Your task to perform on an android device: toggle pop-ups in chrome Image 0: 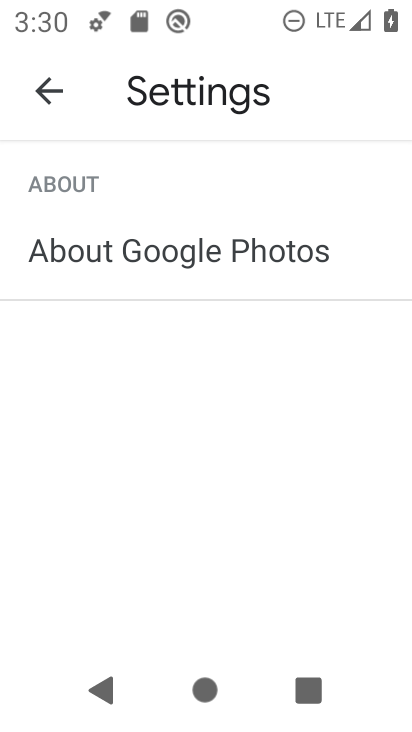
Step 0: press home button
Your task to perform on an android device: toggle pop-ups in chrome Image 1: 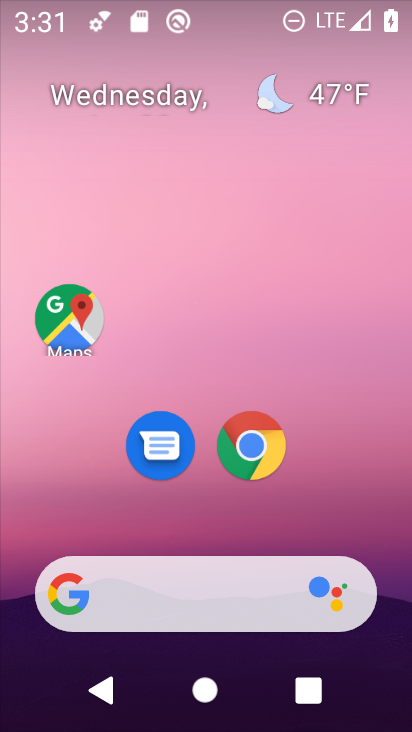
Step 1: click (251, 447)
Your task to perform on an android device: toggle pop-ups in chrome Image 2: 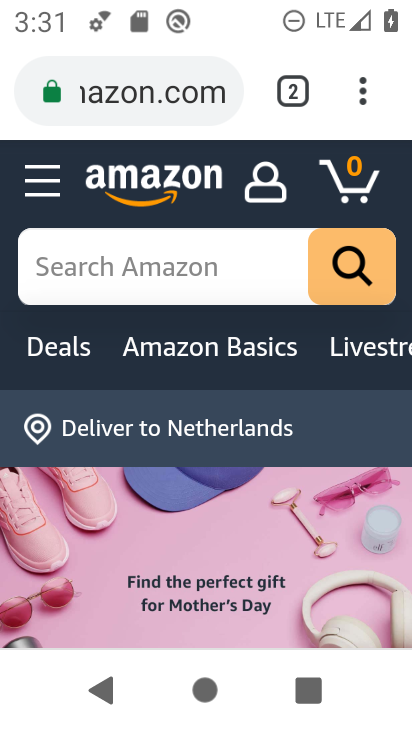
Step 2: click (363, 93)
Your task to perform on an android device: toggle pop-ups in chrome Image 3: 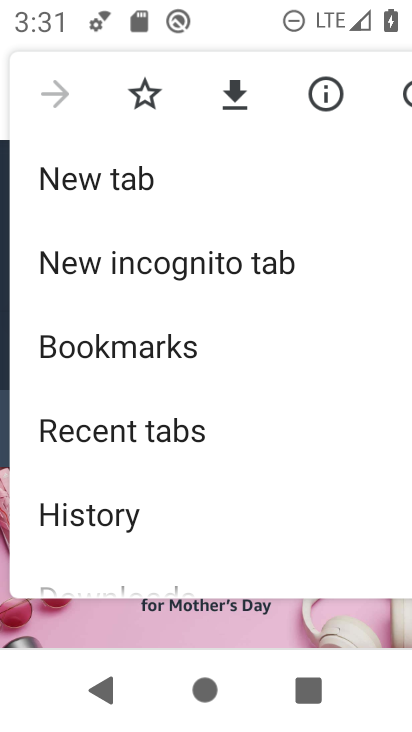
Step 3: drag from (175, 492) to (218, 357)
Your task to perform on an android device: toggle pop-ups in chrome Image 4: 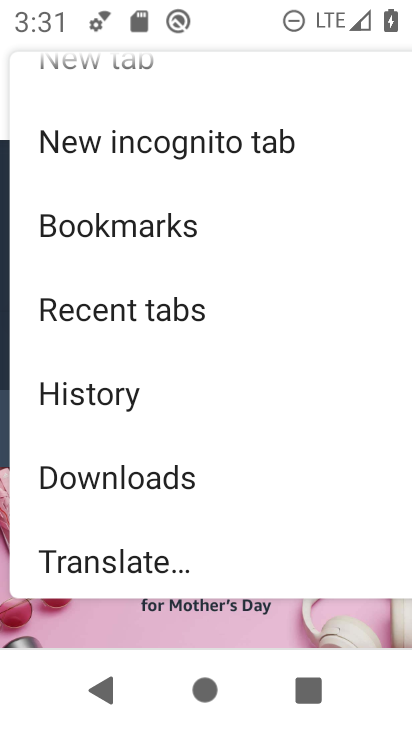
Step 4: drag from (149, 452) to (190, 352)
Your task to perform on an android device: toggle pop-ups in chrome Image 5: 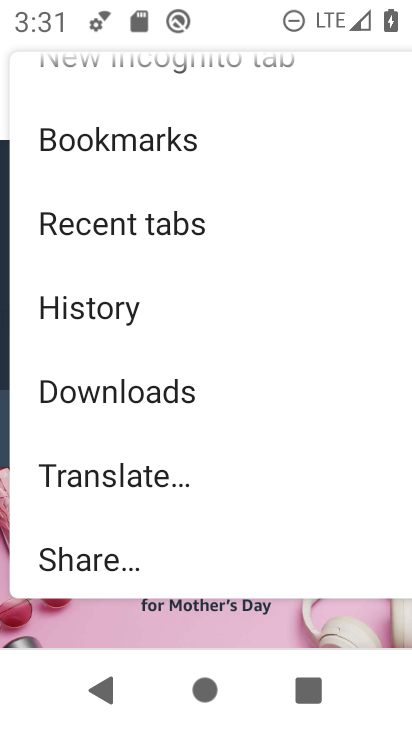
Step 5: drag from (139, 444) to (193, 334)
Your task to perform on an android device: toggle pop-ups in chrome Image 6: 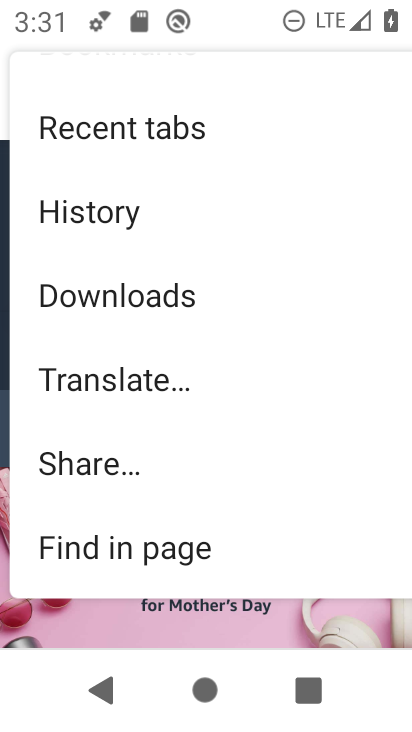
Step 6: drag from (137, 447) to (180, 306)
Your task to perform on an android device: toggle pop-ups in chrome Image 7: 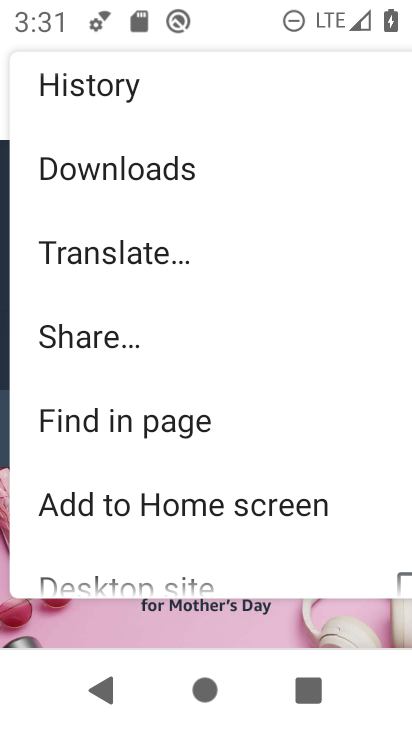
Step 7: drag from (141, 394) to (179, 265)
Your task to perform on an android device: toggle pop-ups in chrome Image 8: 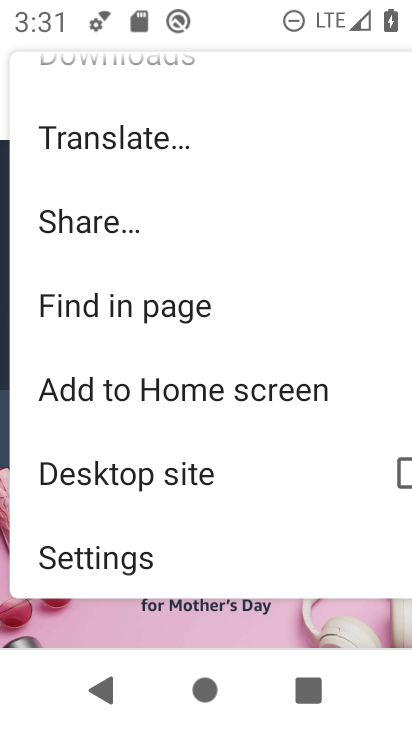
Step 8: drag from (188, 429) to (210, 308)
Your task to perform on an android device: toggle pop-ups in chrome Image 9: 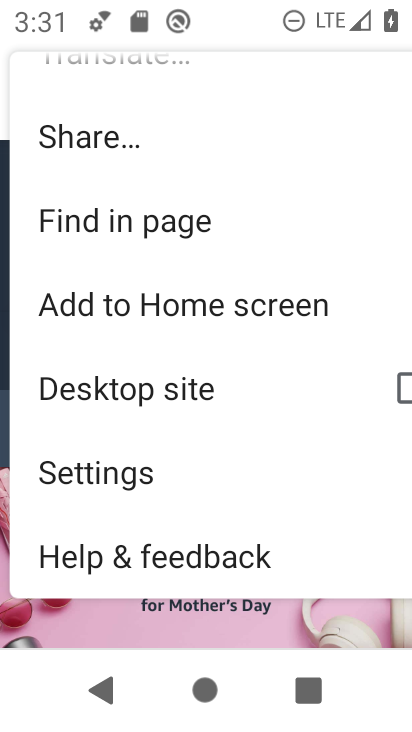
Step 9: click (111, 473)
Your task to perform on an android device: toggle pop-ups in chrome Image 10: 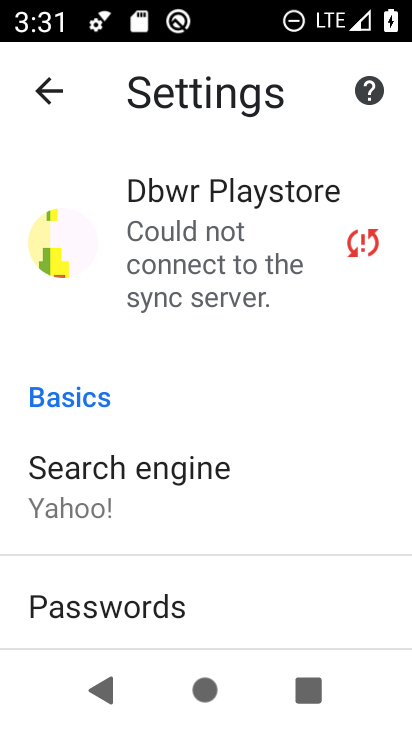
Step 10: drag from (202, 496) to (215, 380)
Your task to perform on an android device: toggle pop-ups in chrome Image 11: 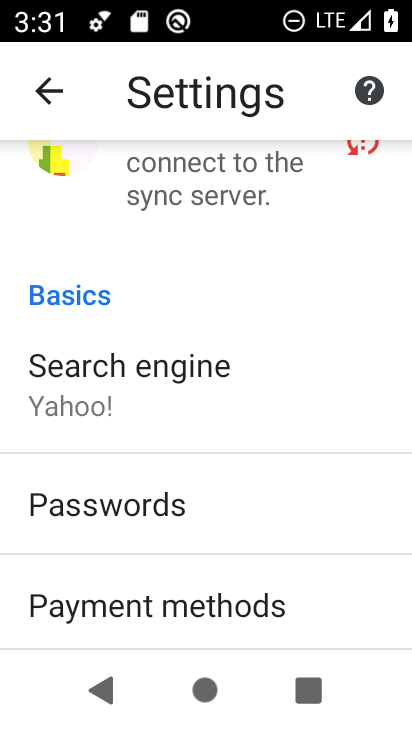
Step 11: drag from (216, 489) to (235, 340)
Your task to perform on an android device: toggle pop-ups in chrome Image 12: 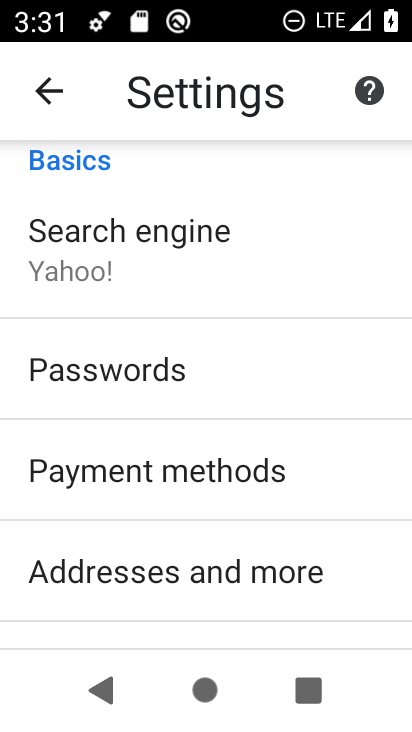
Step 12: drag from (194, 443) to (260, 320)
Your task to perform on an android device: toggle pop-ups in chrome Image 13: 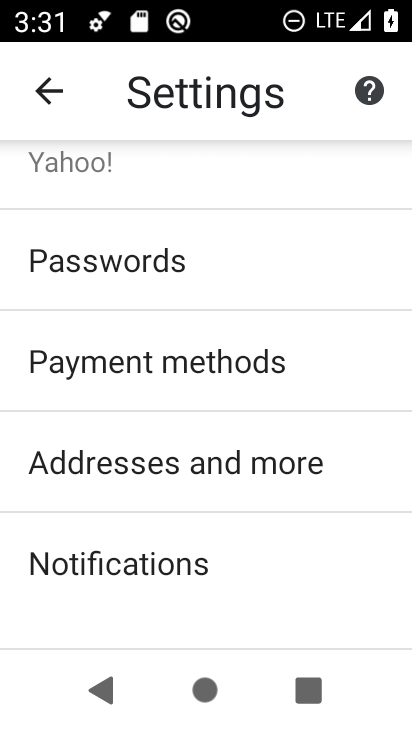
Step 13: drag from (220, 426) to (249, 352)
Your task to perform on an android device: toggle pop-ups in chrome Image 14: 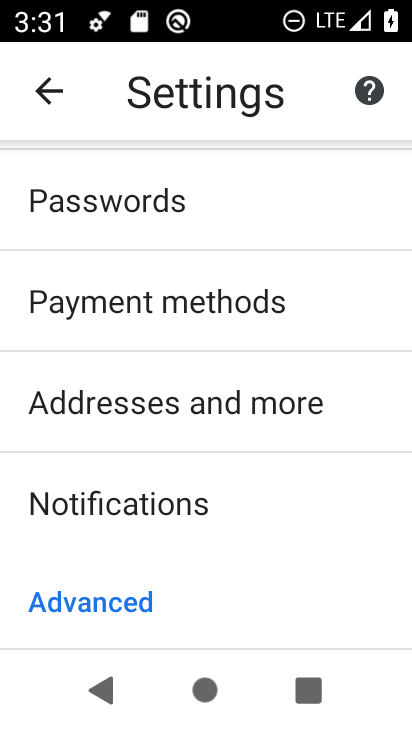
Step 14: drag from (216, 482) to (239, 361)
Your task to perform on an android device: toggle pop-ups in chrome Image 15: 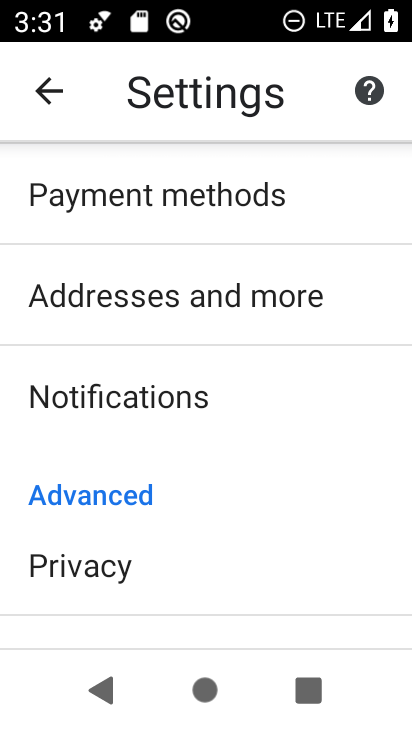
Step 15: drag from (182, 519) to (235, 392)
Your task to perform on an android device: toggle pop-ups in chrome Image 16: 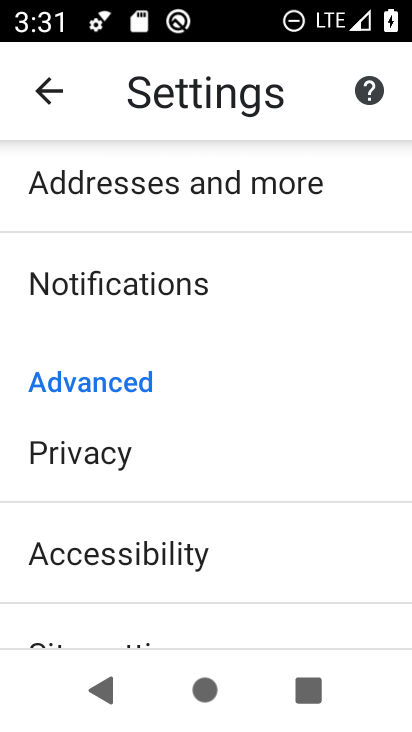
Step 16: drag from (203, 534) to (274, 420)
Your task to perform on an android device: toggle pop-ups in chrome Image 17: 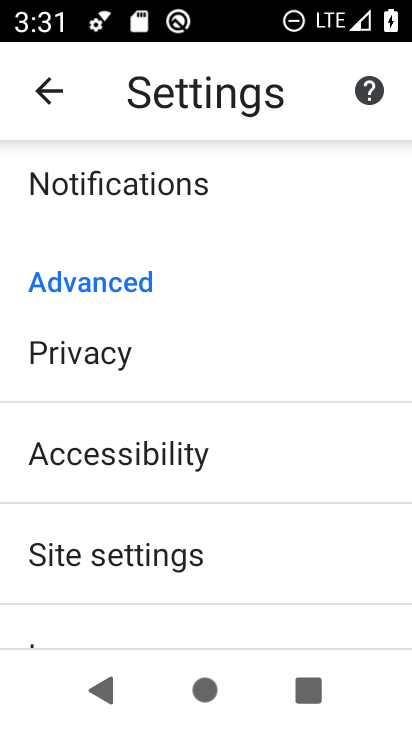
Step 17: drag from (244, 582) to (270, 481)
Your task to perform on an android device: toggle pop-ups in chrome Image 18: 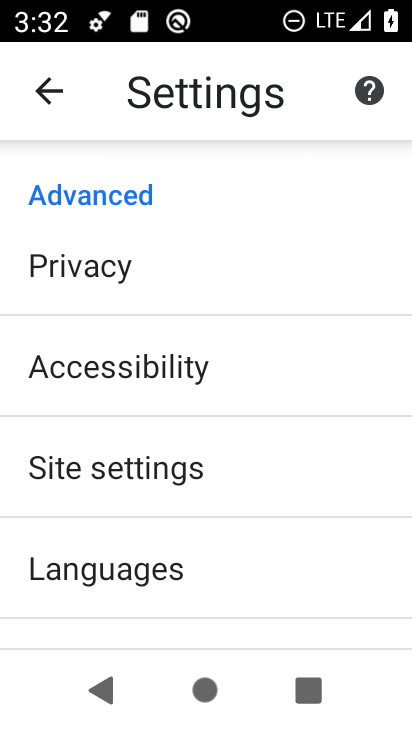
Step 18: click (185, 475)
Your task to perform on an android device: toggle pop-ups in chrome Image 19: 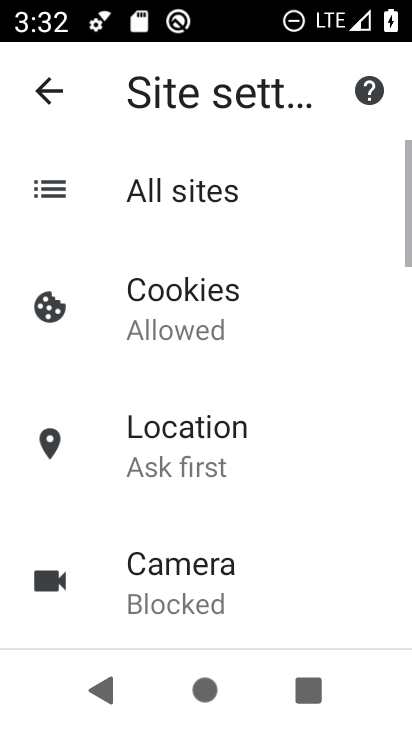
Step 19: drag from (242, 546) to (276, 436)
Your task to perform on an android device: toggle pop-ups in chrome Image 20: 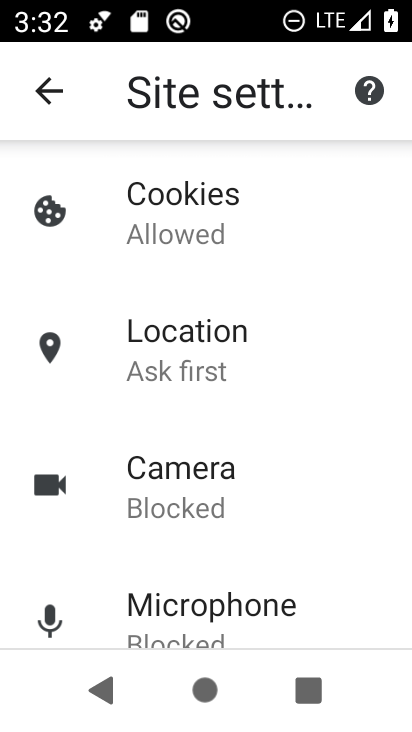
Step 20: drag from (270, 575) to (309, 479)
Your task to perform on an android device: toggle pop-ups in chrome Image 21: 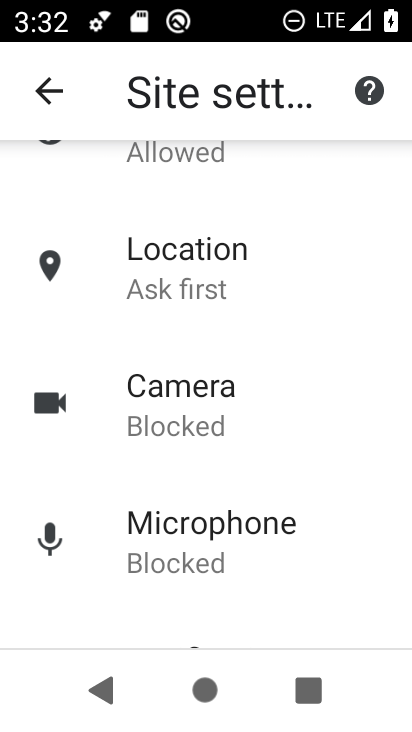
Step 21: drag from (246, 618) to (291, 502)
Your task to perform on an android device: toggle pop-ups in chrome Image 22: 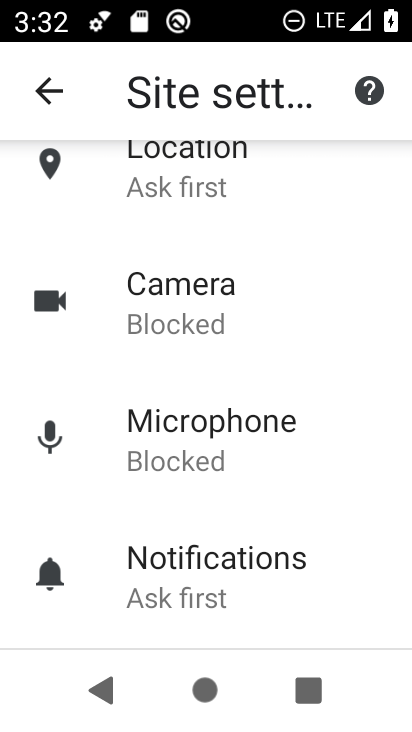
Step 22: drag from (290, 584) to (317, 337)
Your task to perform on an android device: toggle pop-ups in chrome Image 23: 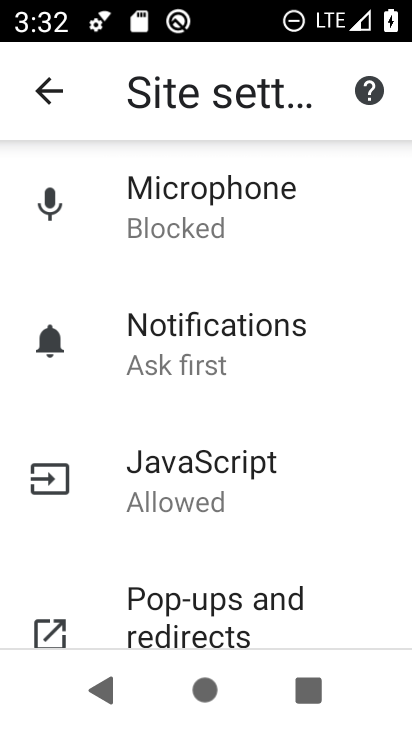
Step 23: drag from (275, 553) to (289, 435)
Your task to perform on an android device: toggle pop-ups in chrome Image 24: 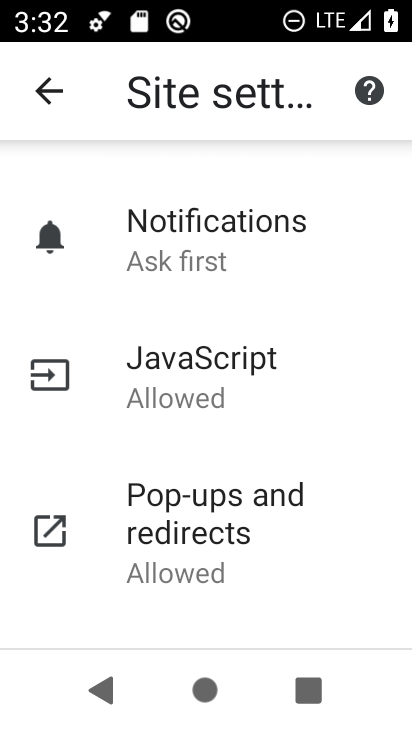
Step 24: click (241, 483)
Your task to perform on an android device: toggle pop-ups in chrome Image 25: 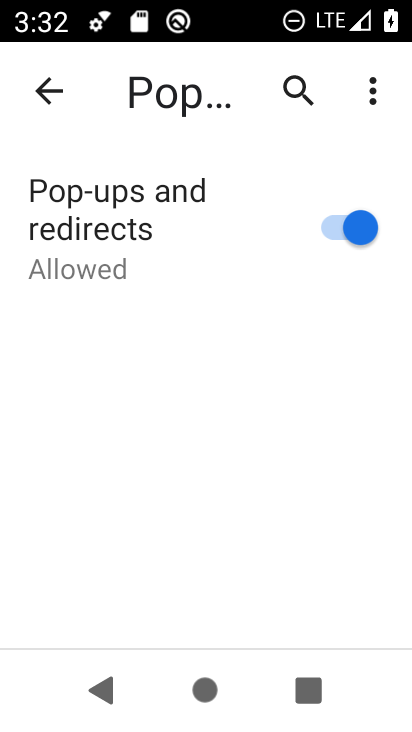
Step 25: click (372, 232)
Your task to perform on an android device: toggle pop-ups in chrome Image 26: 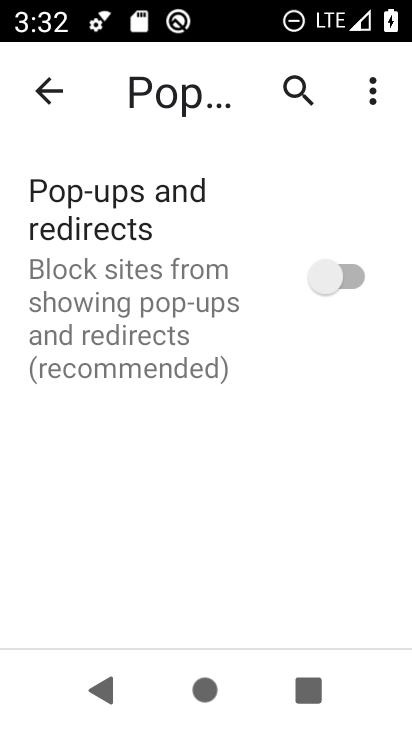
Step 26: task complete